Your task to perform on an android device: Go to accessibility settings Image 0: 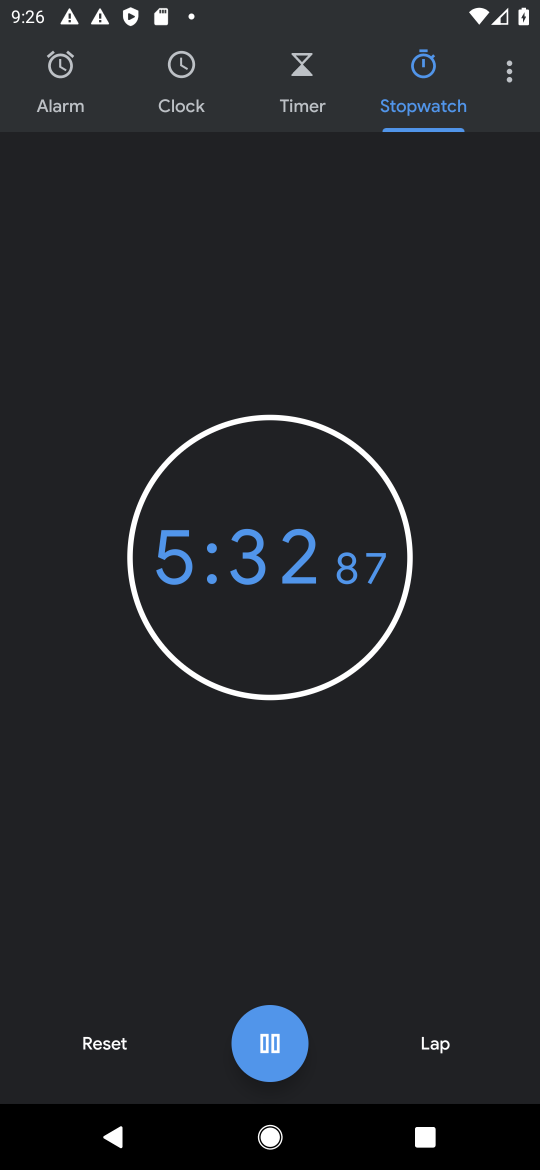
Step 0: drag from (363, 805) to (414, 639)
Your task to perform on an android device: Go to accessibility settings Image 1: 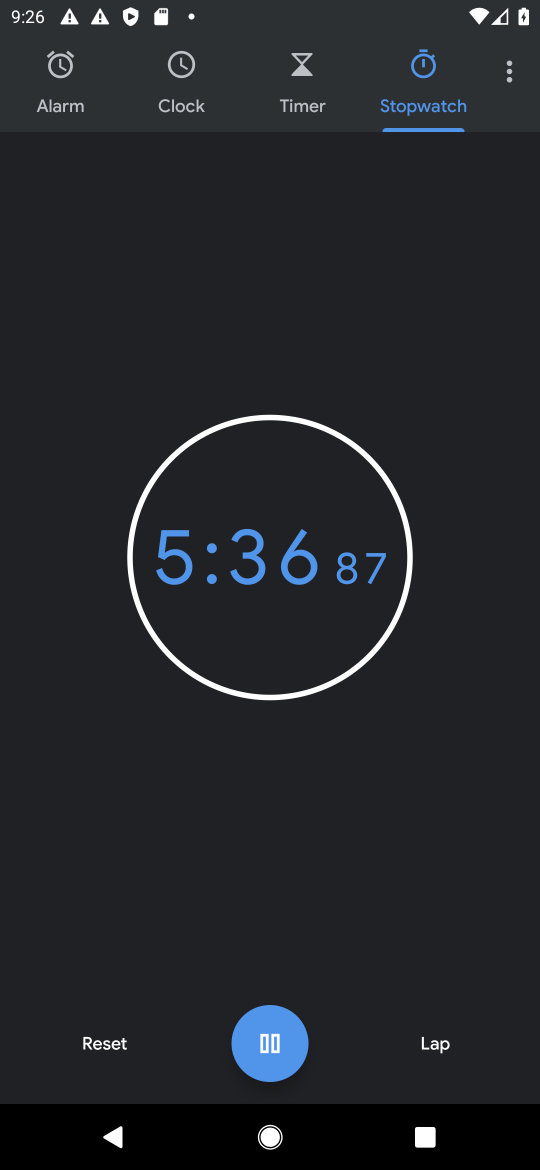
Step 1: press home button
Your task to perform on an android device: Go to accessibility settings Image 2: 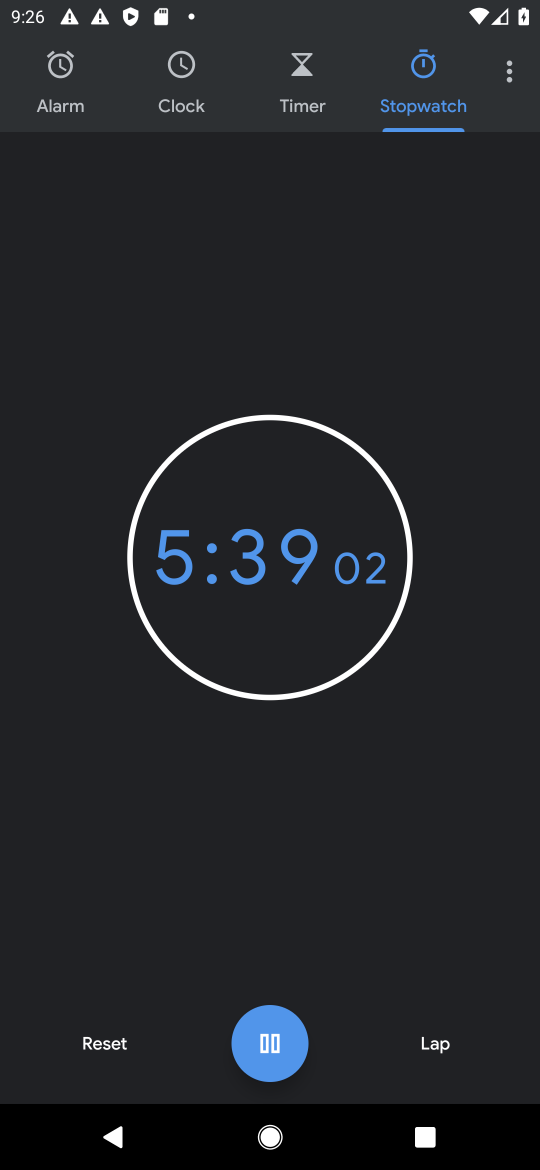
Step 2: click (324, 99)
Your task to perform on an android device: Go to accessibility settings Image 3: 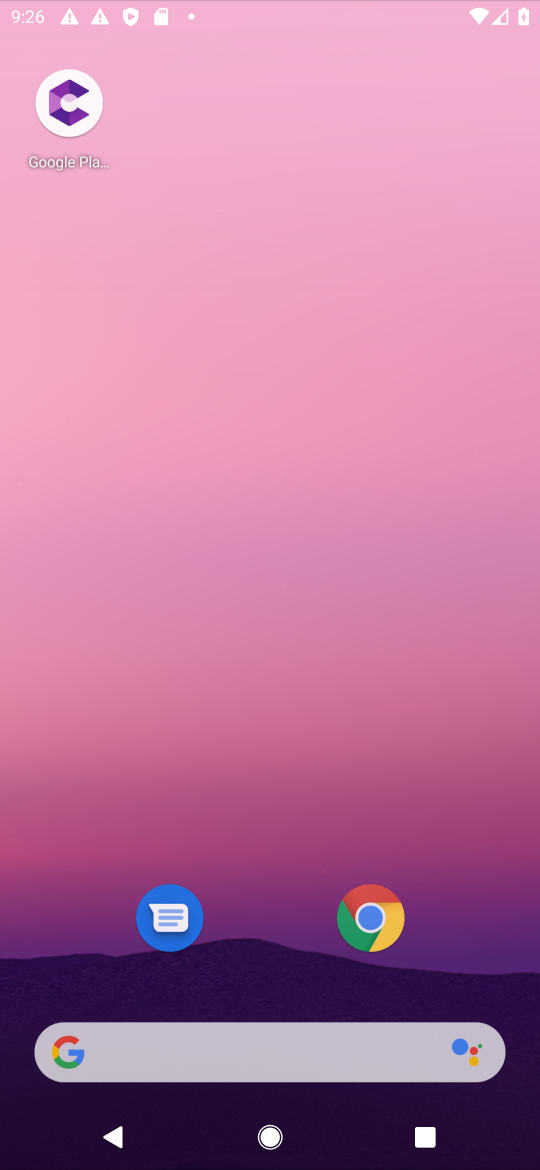
Step 3: drag from (325, 827) to (325, 325)
Your task to perform on an android device: Go to accessibility settings Image 4: 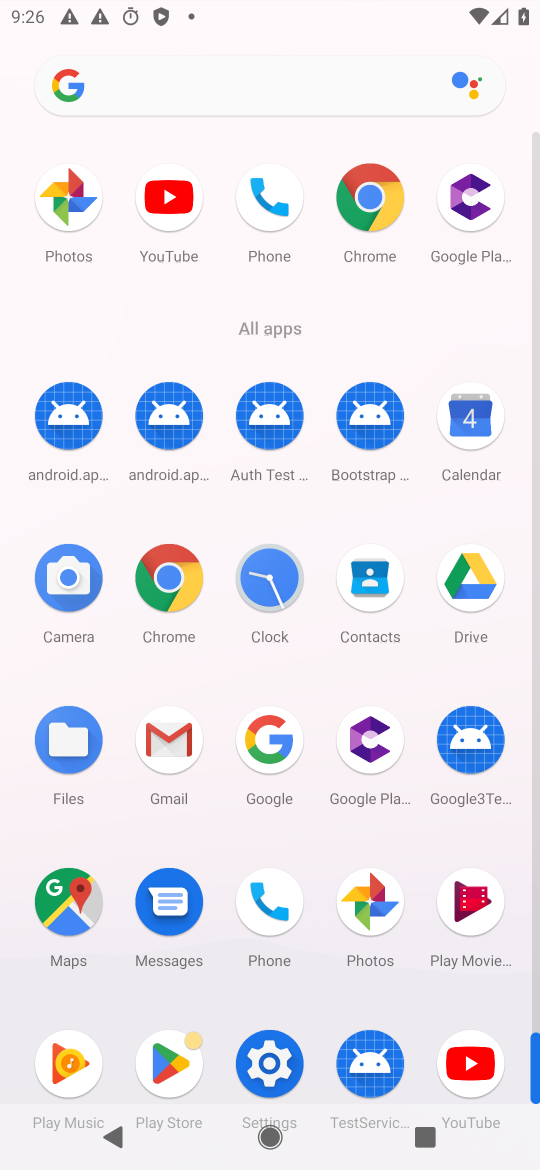
Step 4: click (271, 1109)
Your task to perform on an android device: Go to accessibility settings Image 5: 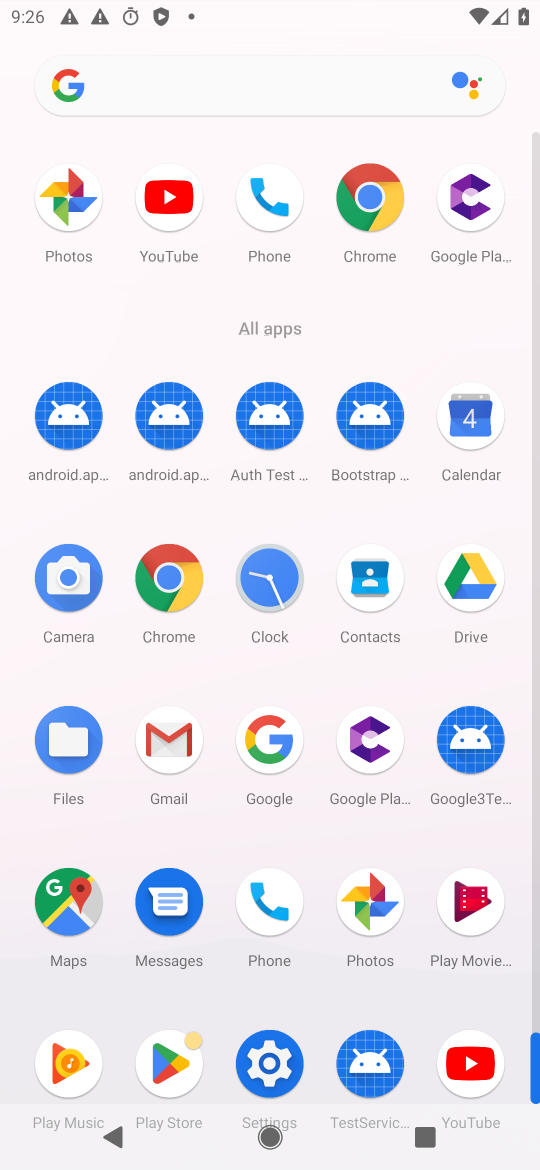
Step 5: click (271, 1067)
Your task to perform on an android device: Go to accessibility settings Image 6: 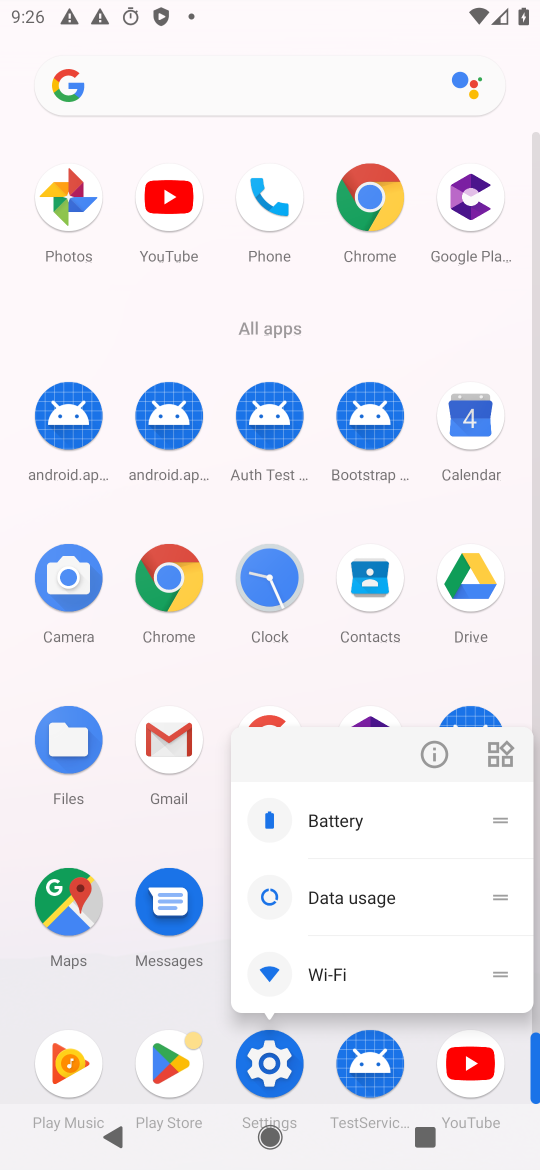
Step 6: click (447, 778)
Your task to perform on an android device: Go to accessibility settings Image 7: 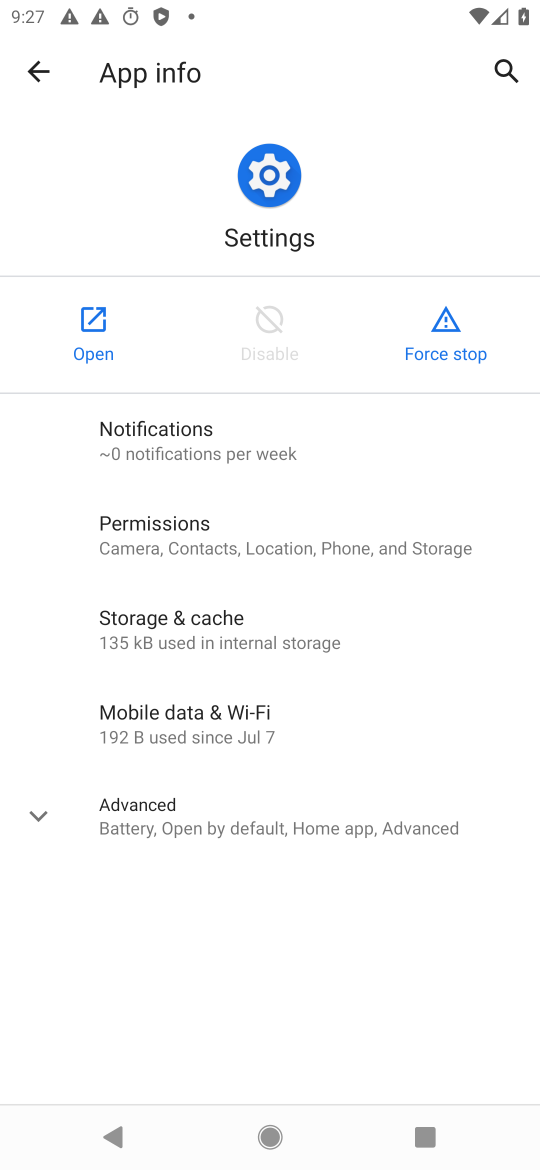
Step 7: click (95, 329)
Your task to perform on an android device: Go to accessibility settings Image 8: 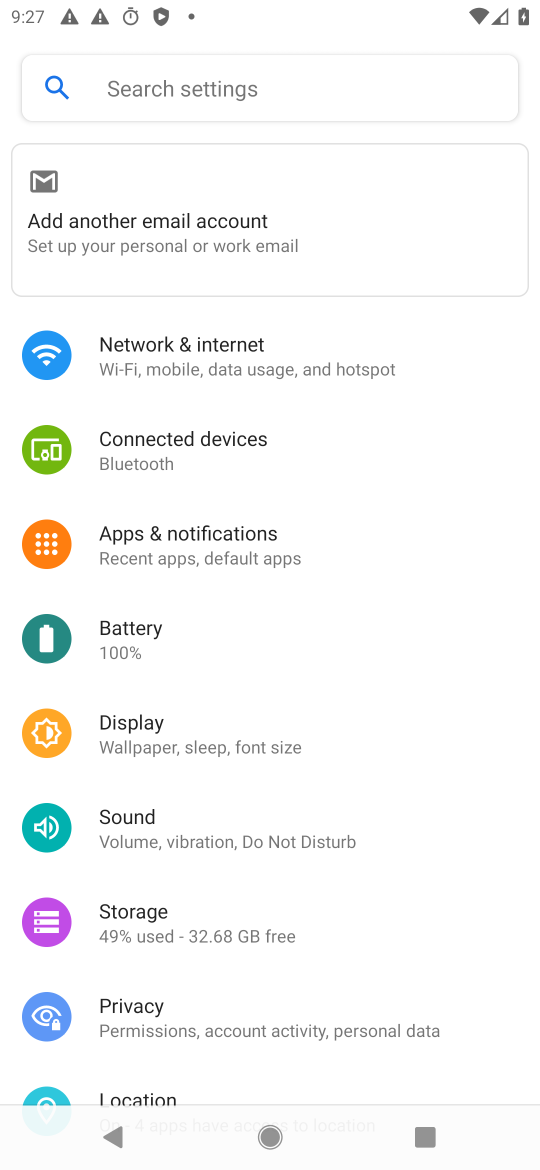
Step 8: drag from (150, 871) to (214, 196)
Your task to perform on an android device: Go to accessibility settings Image 9: 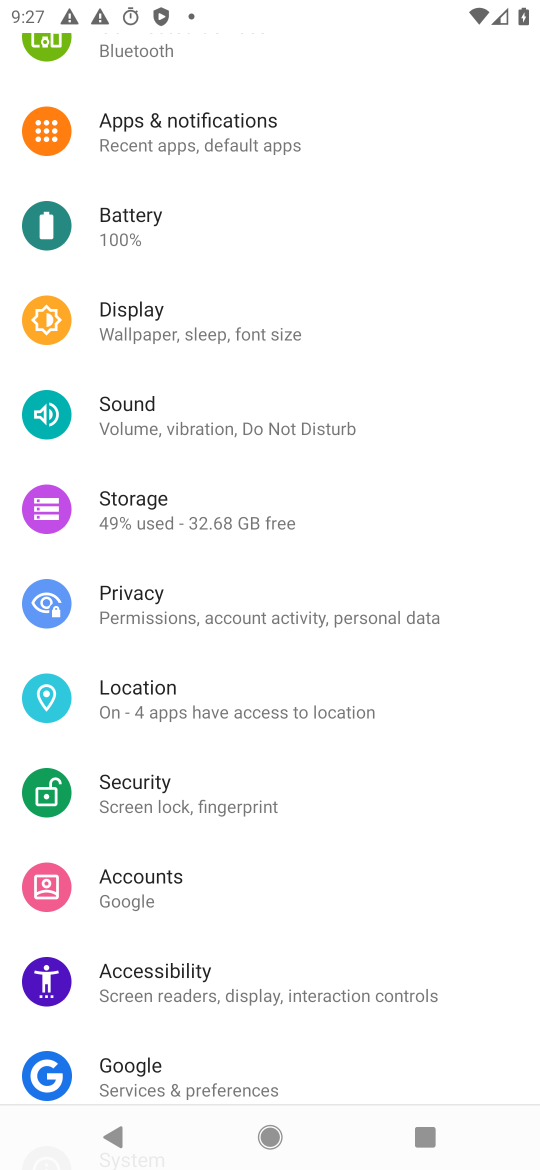
Step 9: click (155, 983)
Your task to perform on an android device: Go to accessibility settings Image 10: 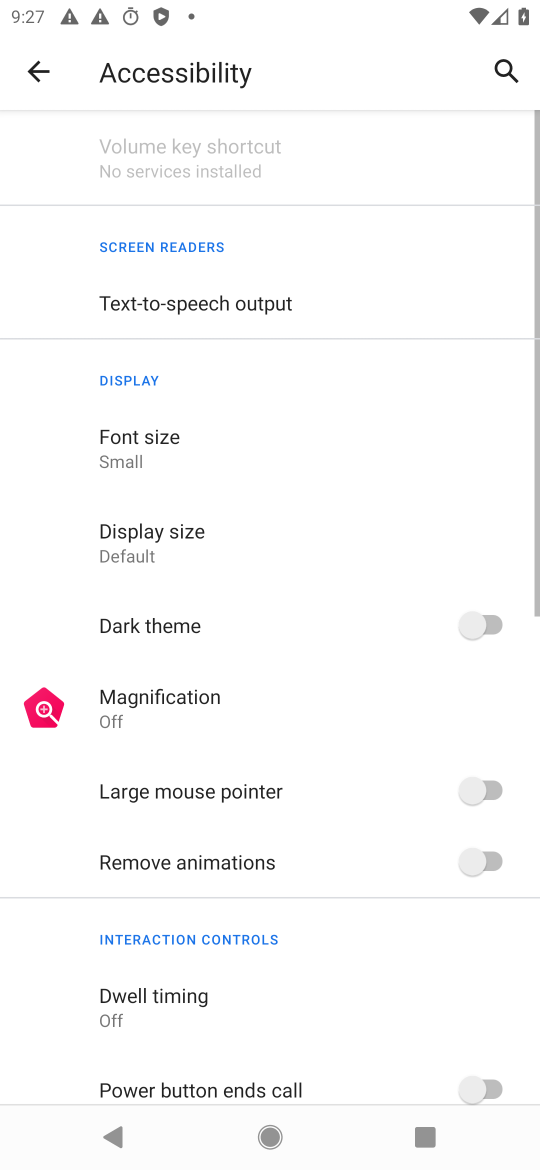
Step 10: task complete